Your task to perform on an android device: allow cookies in the chrome app Image 0: 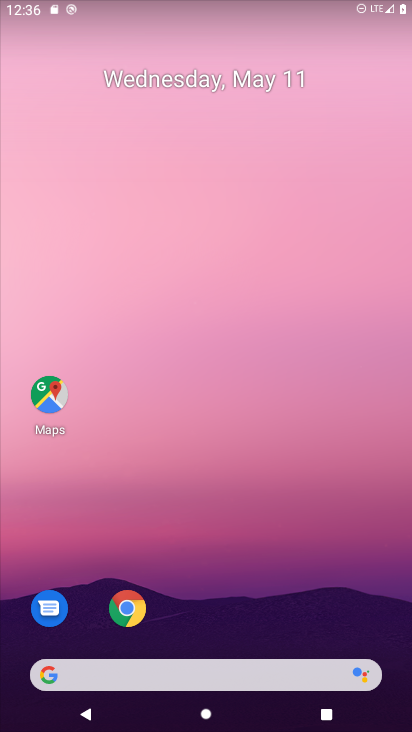
Step 0: drag from (219, 550) to (210, 33)
Your task to perform on an android device: allow cookies in the chrome app Image 1: 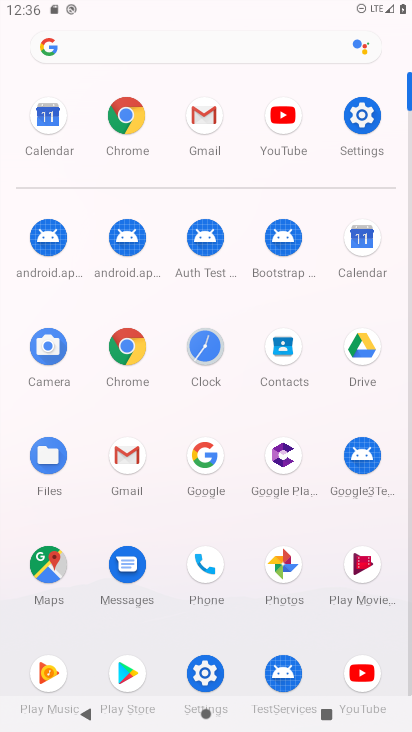
Step 1: click (135, 114)
Your task to perform on an android device: allow cookies in the chrome app Image 2: 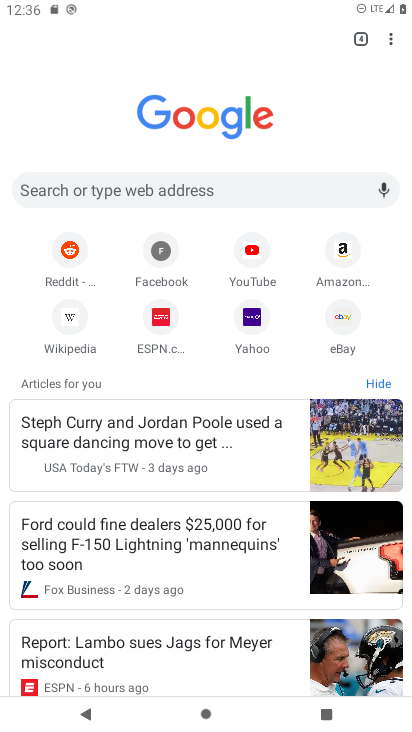
Step 2: click (392, 39)
Your task to perform on an android device: allow cookies in the chrome app Image 3: 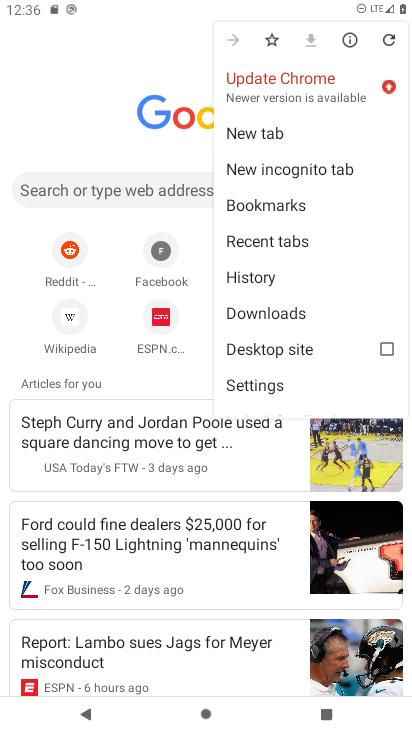
Step 3: click (278, 381)
Your task to perform on an android device: allow cookies in the chrome app Image 4: 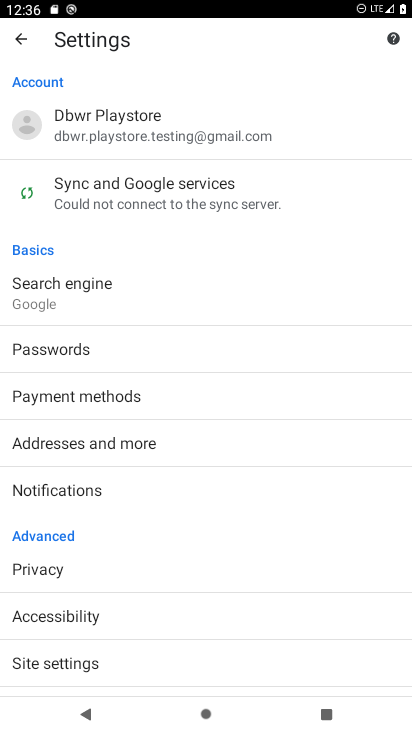
Step 4: click (157, 659)
Your task to perform on an android device: allow cookies in the chrome app Image 5: 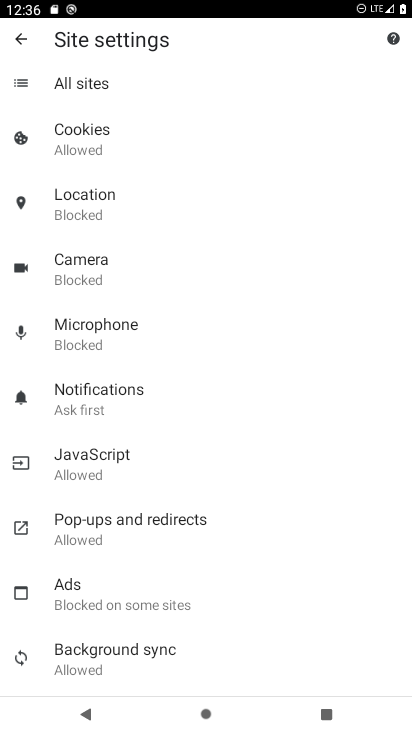
Step 5: task complete